Your task to perform on an android device: Open Yahoo.com Image 0: 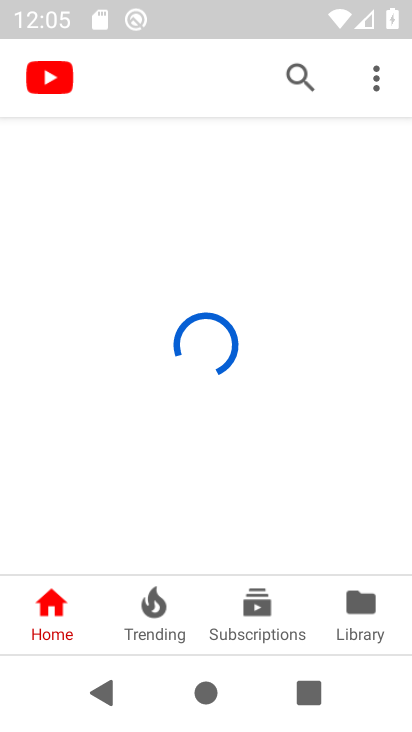
Step 0: press home button
Your task to perform on an android device: Open Yahoo.com Image 1: 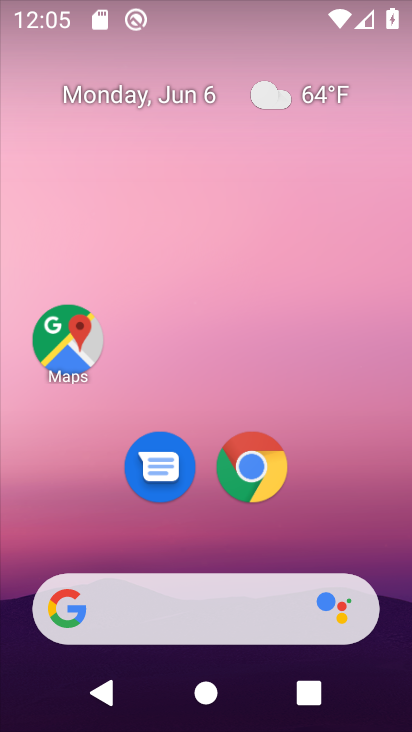
Step 1: drag from (395, 619) to (222, 54)
Your task to perform on an android device: Open Yahoo.com Image 2: 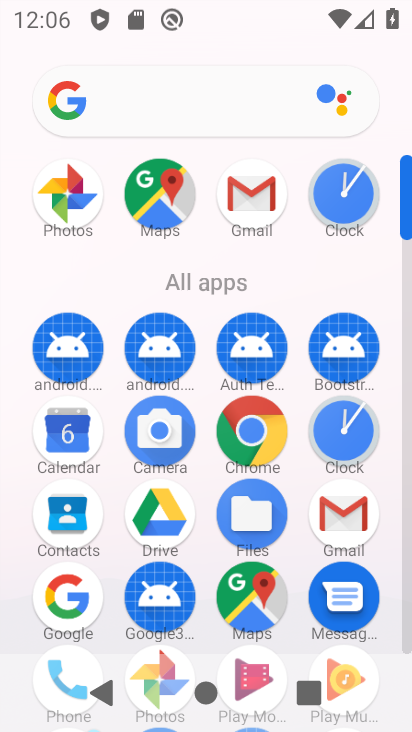
Step 2: click (50, 597)
Your task to perform on an android device: Open Yahoo.com Image 3: 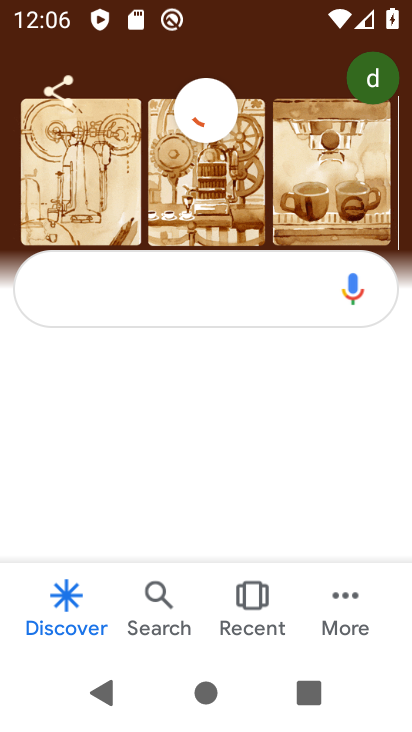
Step 3: click (173, 311)
Your task to perform on an android device: Open Yahoo.com Image 4: 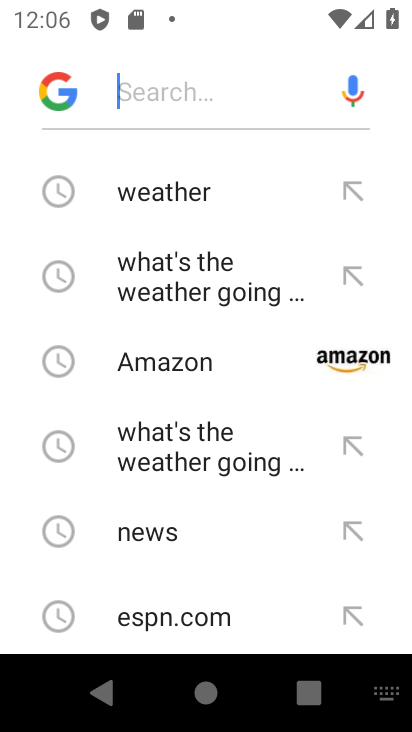
Step 4: drag from (196, 589) to (201, 101)
Your task to perform on an android device: Open Yahoo.com Image 5: 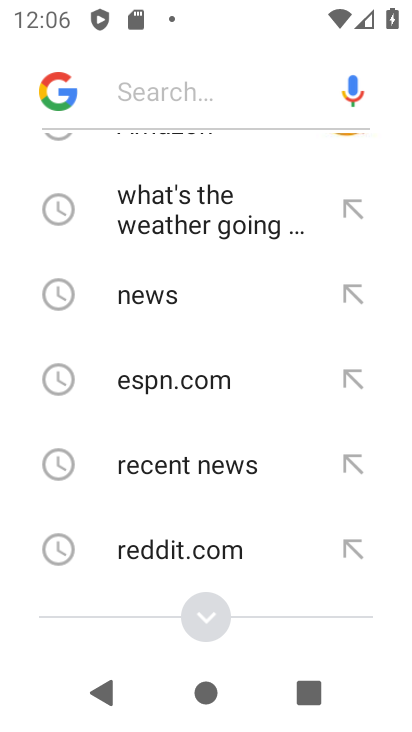
Step 5: click (210, 628)
Your task to perform on an android device: Open Yahoo.com Image 6: 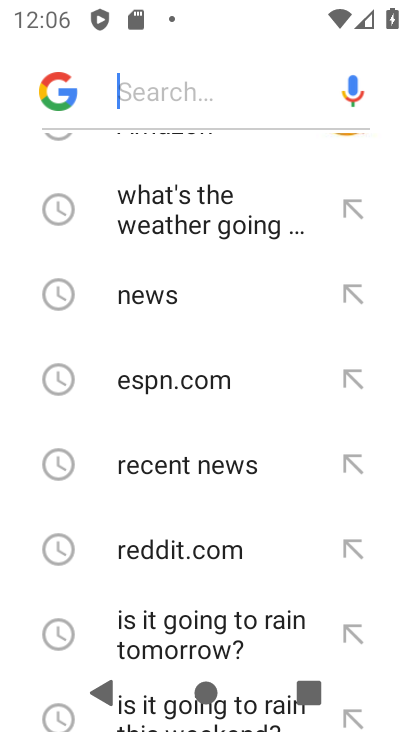
Step 6: drag from (200, 634) to (237, 131)
Your task to perform on an android device: Open Yahoo.com Image 7: 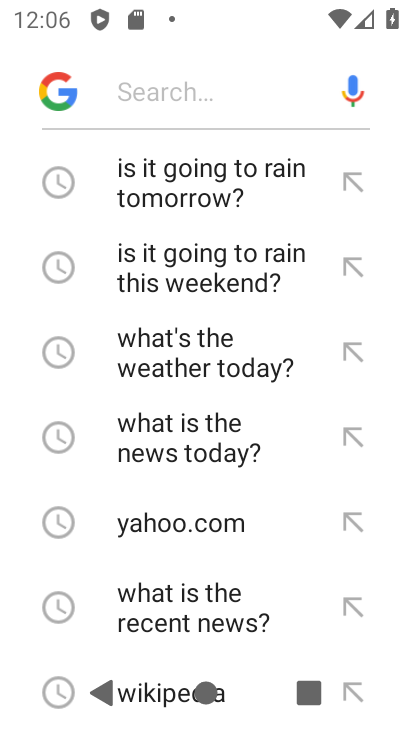
Step 7: click (188, 526)
Your task to perform on an android device: Open Yahoo.com Image 8: 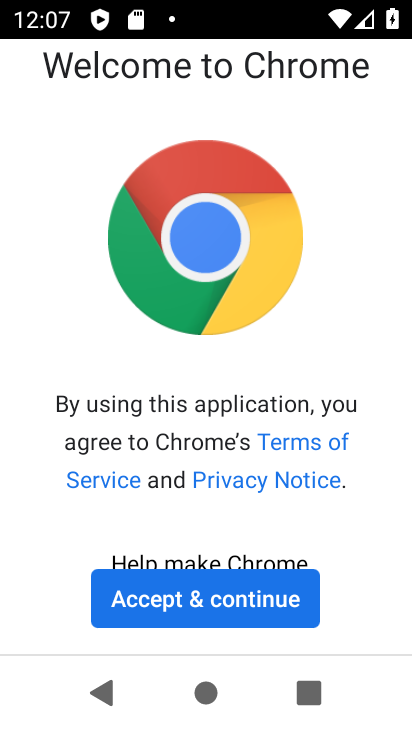
Step 8: click (225, 584)
Your task to perform on an android device: Open Yahoo.com Image 9: 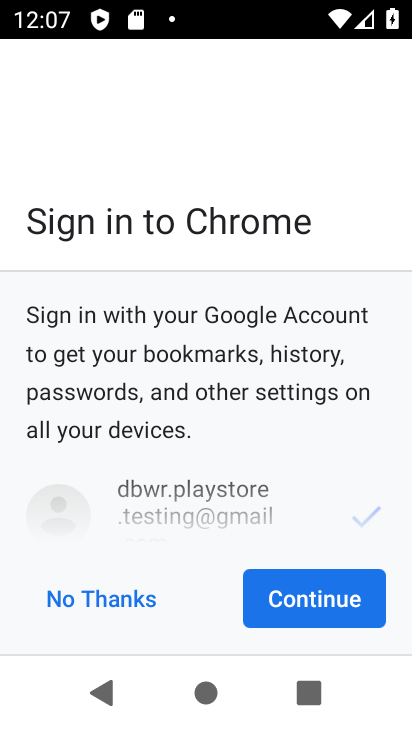
Step 9: click (287, 594)
Your task to perform on an android device: Open Yahoo.com Image 10: 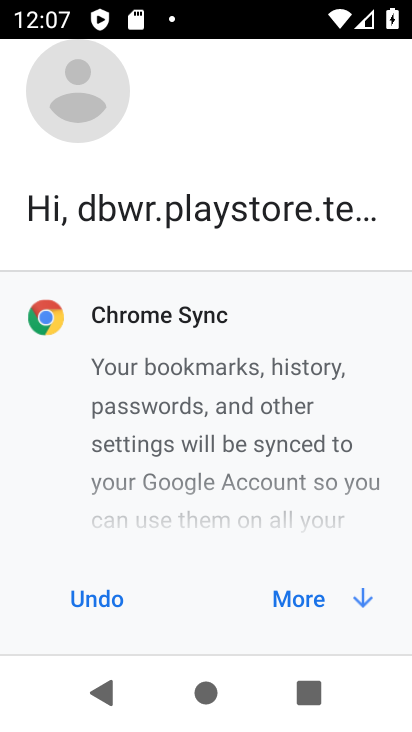
Step 10: click (307, 599)
Your task to perform on an android device: Open Yahoo.com Image 11: 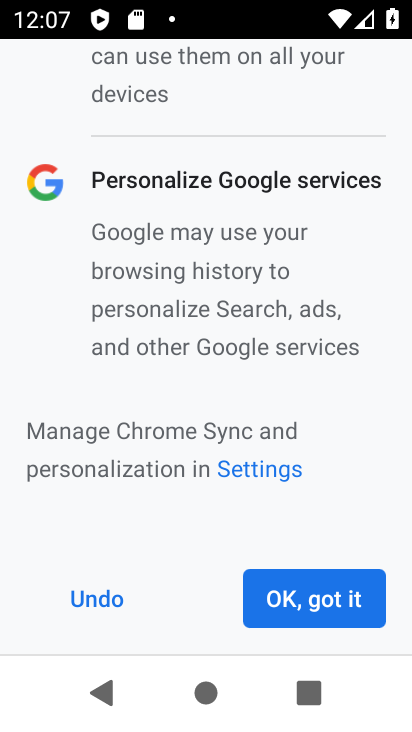
Step 11: click (307, 599)
Your task to perform on an android device: Open Yahoo.com Image 12: 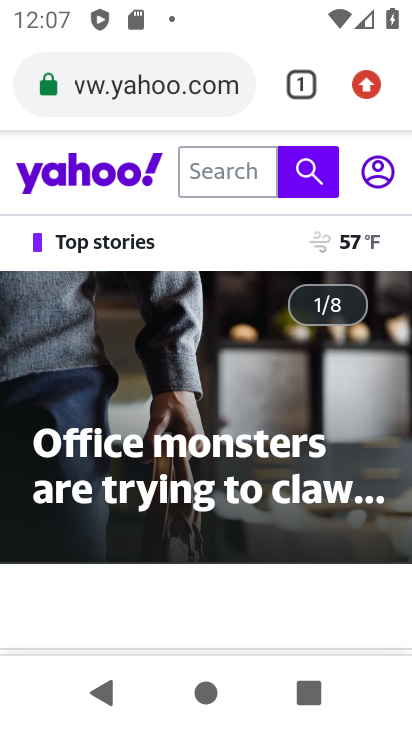
Step 12: task complete